Your task to perform on an android device: Open battery settings Image 0: 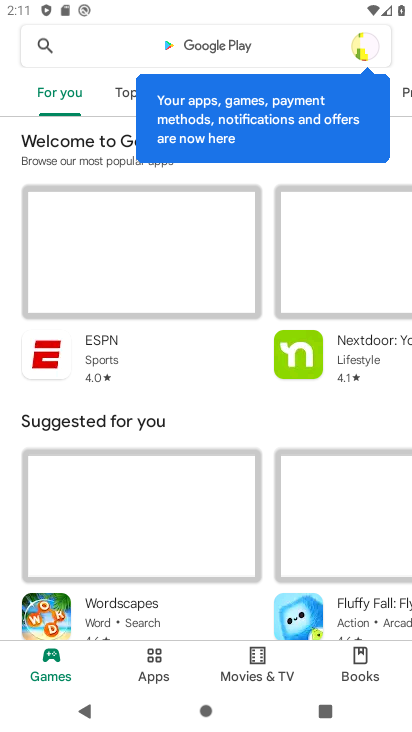
Step 0: press home button
Your task to perform on an android device: Open battery settings Image 1: 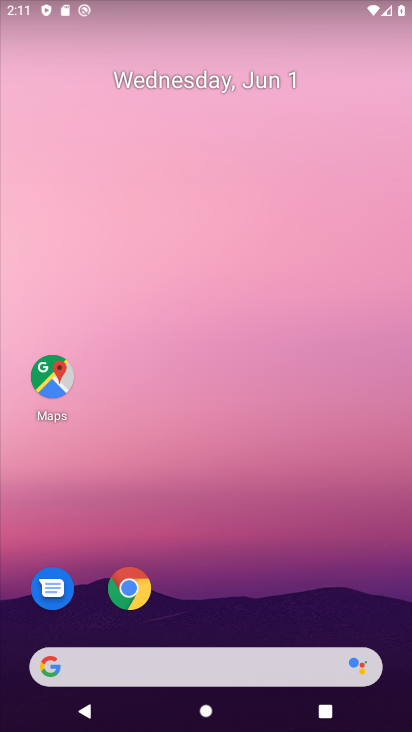
Step 1: drag from (199, 639) to (289, 138)
Your task to perform on an android device: Open battery settings Image 2: 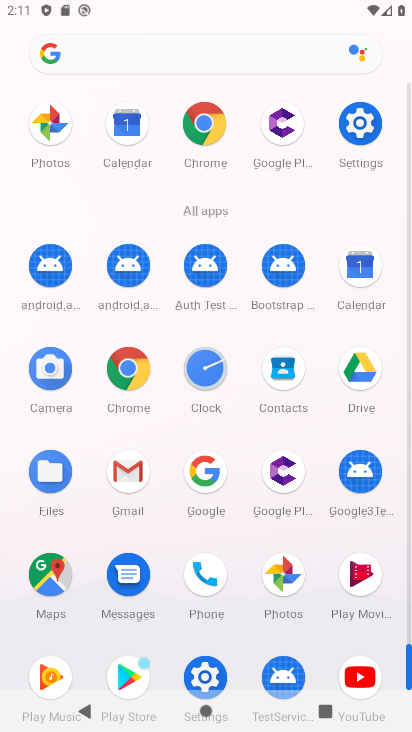
Step 2: click (201, 658)
Your task to perform on an android device: Open battery settings Image 3: 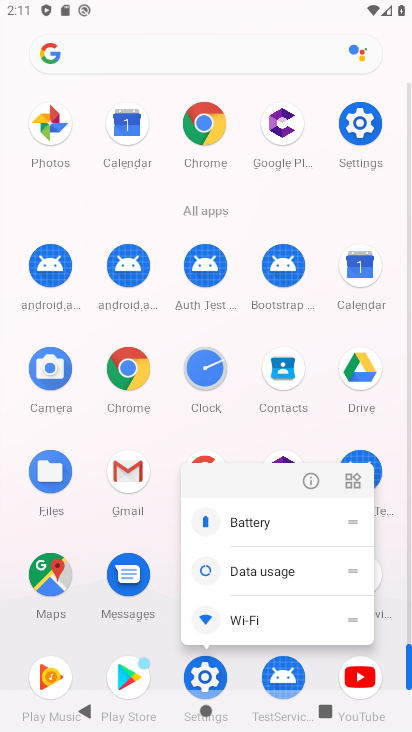
Step 3: click (203, 680)
Your task to perform on an android device: Open battery settings Image 4: 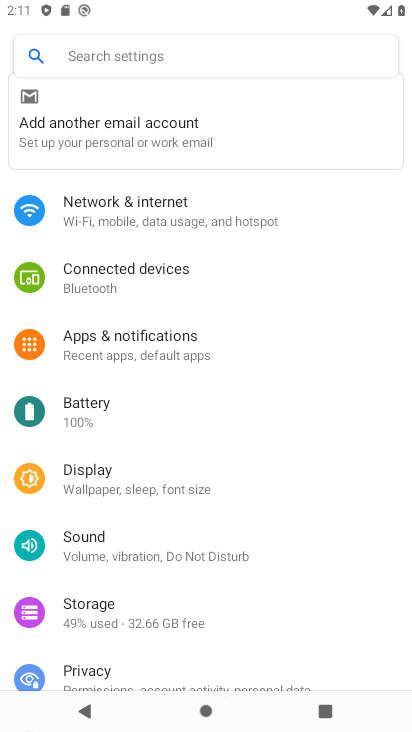
Step 4: click (157, 415)
Your task to perform on an android device: Open battery settings Image 5: 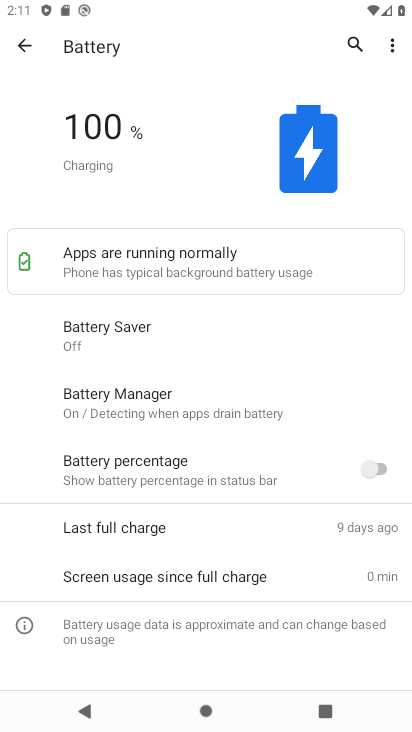
Step 5: task complete